Your task to perform on an android device: turn on location history Image 0: 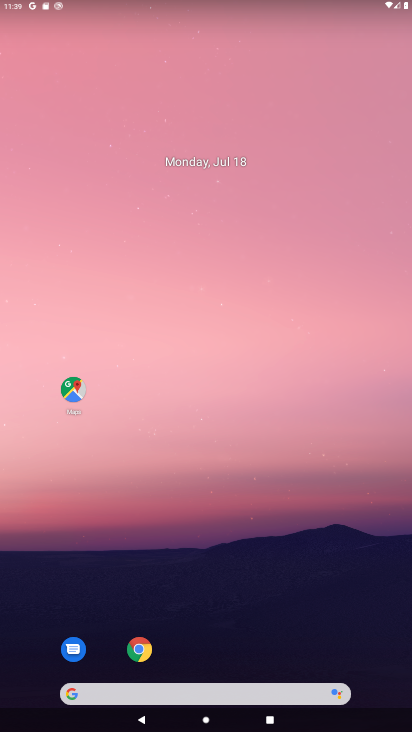
Step 0: drag from (281, 631) to (288, 98)
Your task to perform on an android device: turn on location history Image 1: 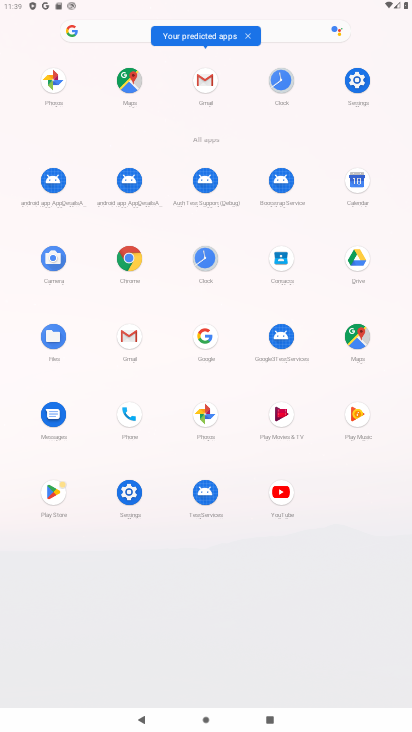
Step 1: click (135, 493)
Your task to perform on an android device: turn on location history Image 2: 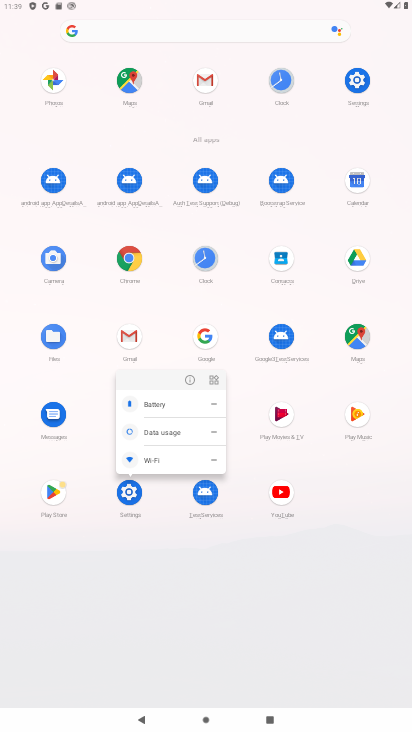
Step 2: click (141, 497)
Your task to perform on an android device: turn on location history Image 3: 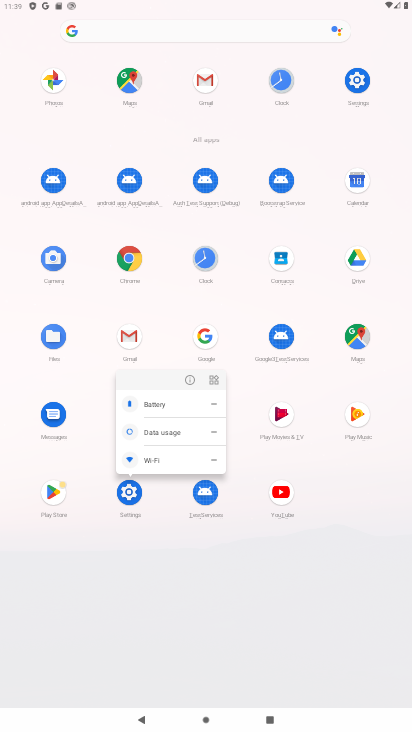
Step 3: click (134, 500)
Your task to perform on an android device: turn on location history Image 4: 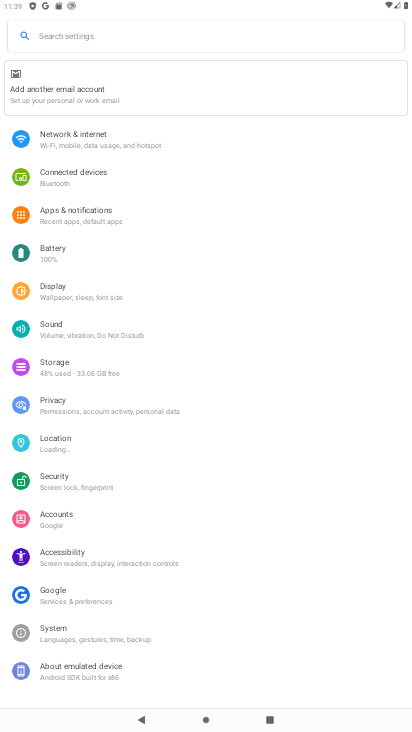
Step 4: click (100, 448)
Your task to perform on an android device: turn on location history Image 5: 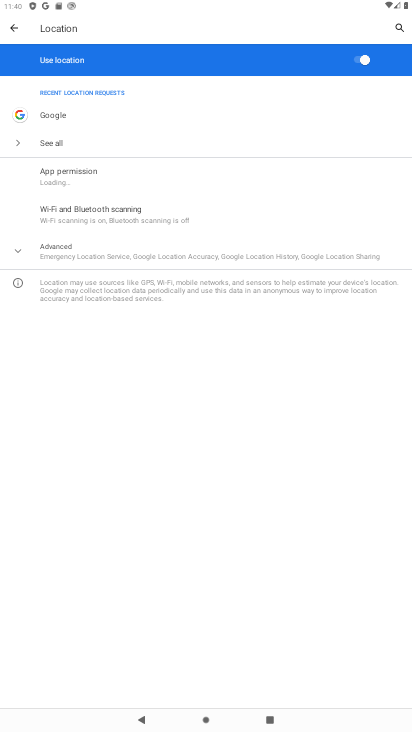
Step 5: click (153, 255)
Your task to perform on an android device: turn on location history Image 6: 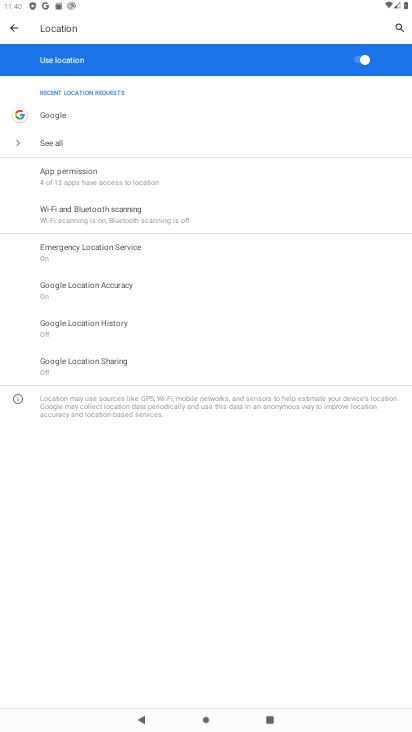
Step 6: click (132, 327)
Your task to perform on an android device: turn on location history Image 7: 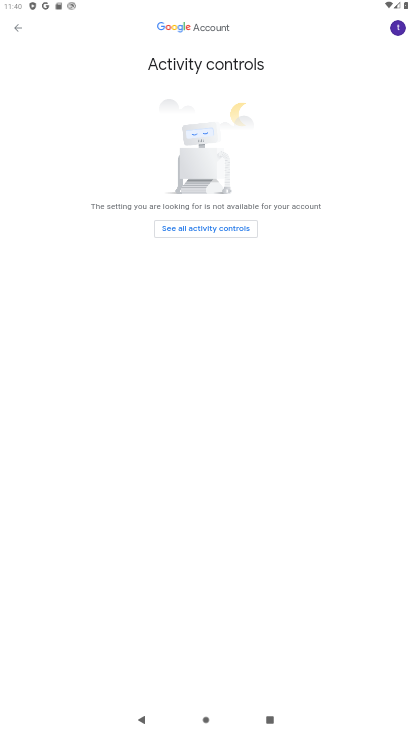
Step 7: task complete